Your task to perform on an android device: Do I have any events this weekend? Image 0: 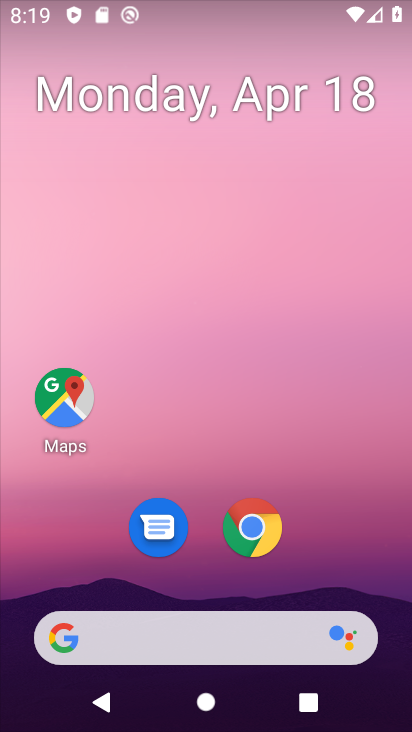
Step 0: drag from (330, 562) to (348, 101)
Your task to perform on an android device: Do I have any events this weekend? Image 1: 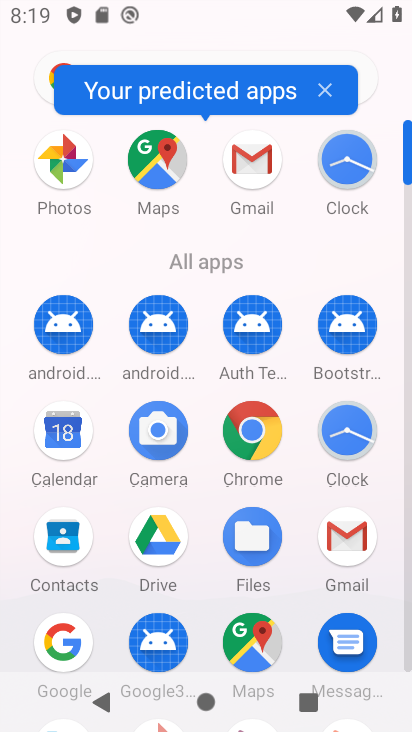
Step 1: click (63, 427)
Your task to perform on an android device: Do I have any events this weekend? Image 2: 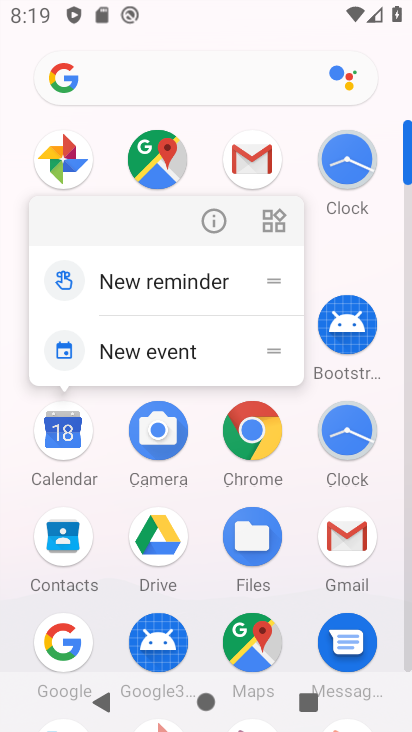
Step 2: click (60, 434)
Your task to perform on an android device: Do I have any events this weekend? Image 3: 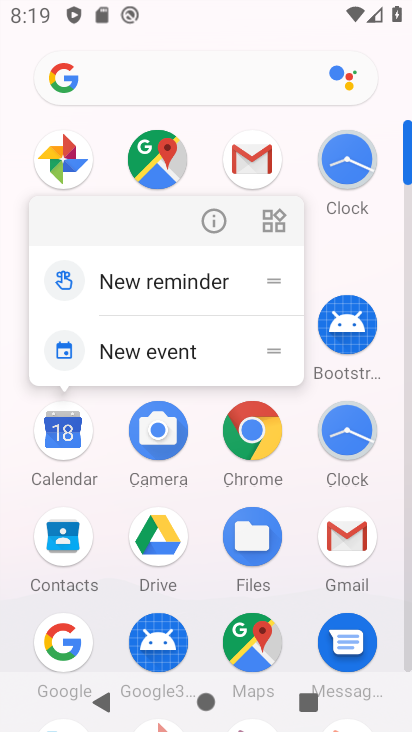
Step 3: click (62, 429)
Your task to perform on an android device: Do I have any events this weekend? Image 4: 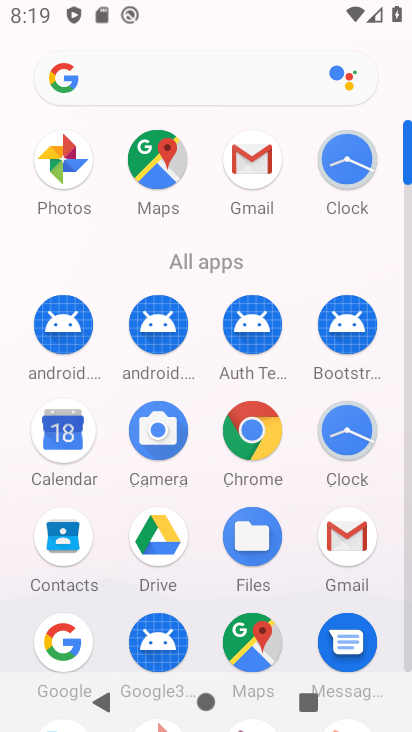
Step 4: click (62, 429)
Your task to perform on an android device: Do I have any events this weekend? Image 5: 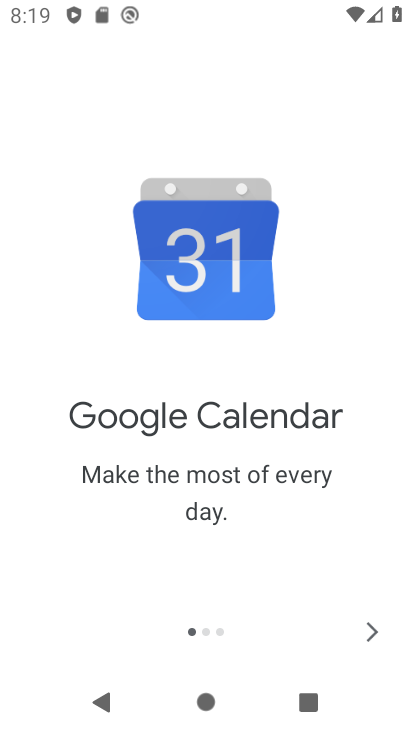
Step 5: click (375, 626)
Your task to perform on an android device: Do I have any events this weekend? Image 6: 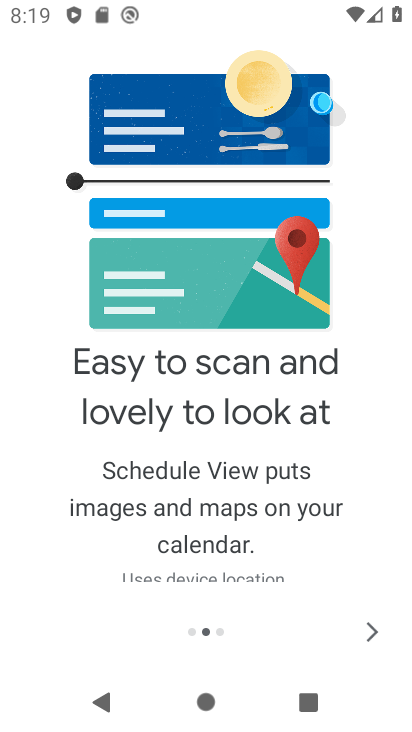
Step 6: click (375, 626)
Your task to perform on an android device: Do I have any events this weekend? Image 7: 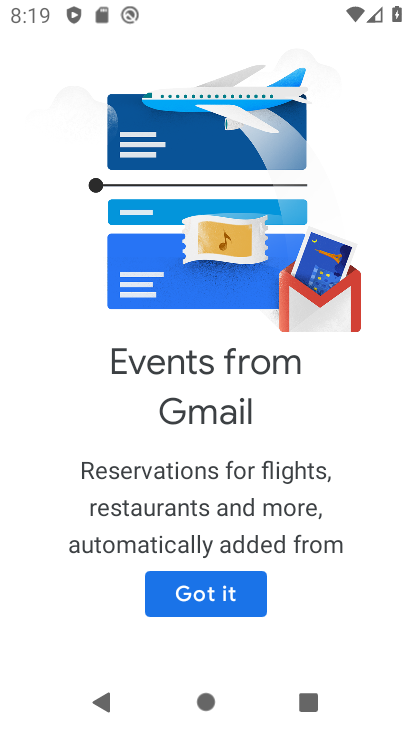
Step 7: click (196, 600)
Your task to perform on an android device: Do I have any events this weekend? Image 8: 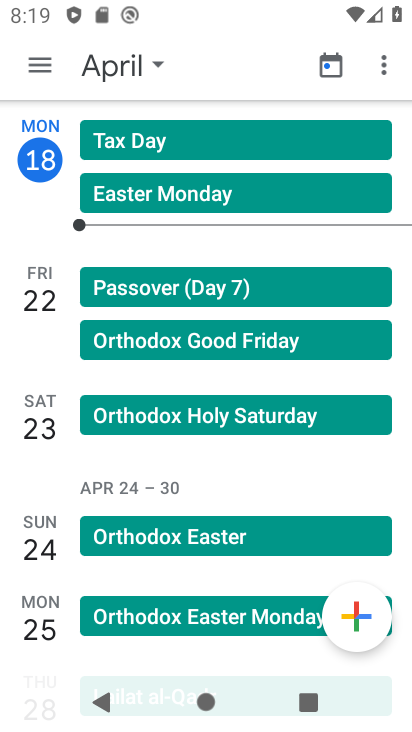
Step 8: click (132, 61)
Your task to perform on an android device: Do I have any events this weekend? Image 9: 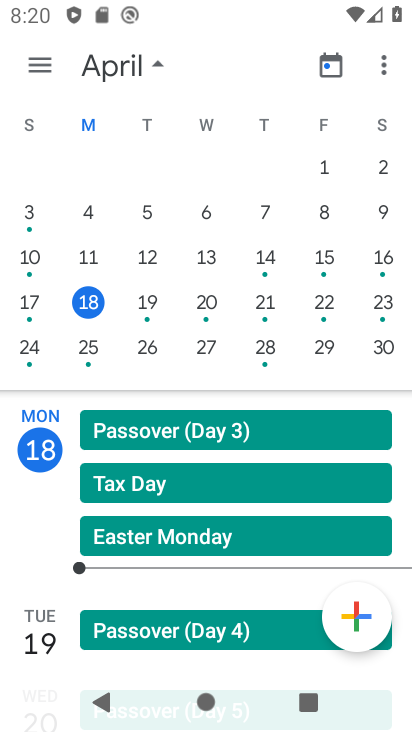
Step 9: click (382, 301)
Your task to perform on an android device: Do I have any events this weekend? Image 10: 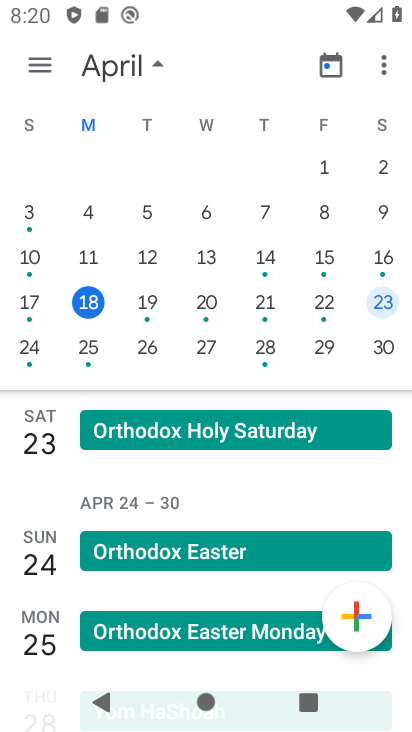
Step 10: click (25, 349)
Your task to perform on an android device: Do I have any events this weekend? Image 11: 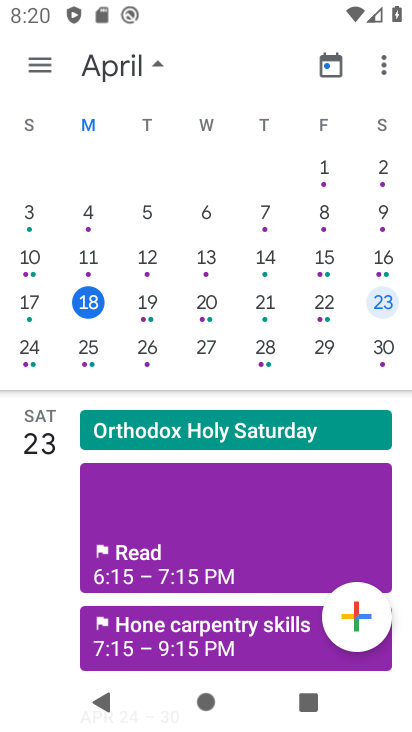
Step 11: click (29, 344)
Your task to perform on an android device: Do I have any events this weekend? Image 12: 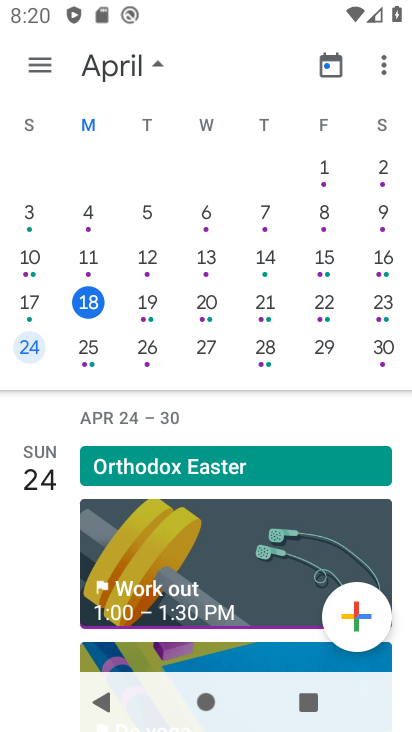
Step 12: task complete